Your task to perform on an android device: Open Yahoo.com Image 0: 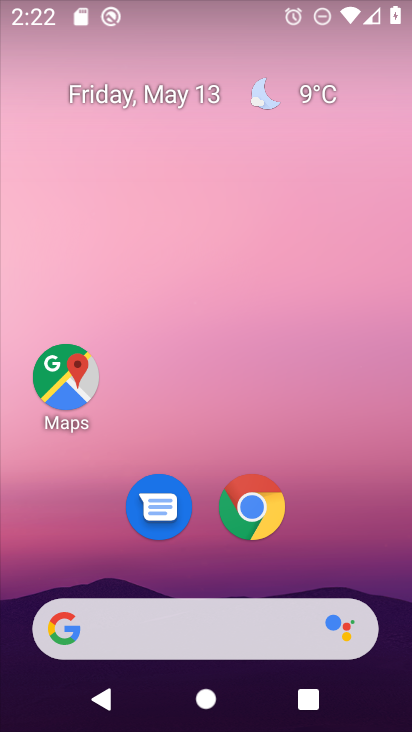
Step 0: drag from (352, 503) to (128, 4)
Your task to perform on an android device: Open Yahoo.com Image 1: 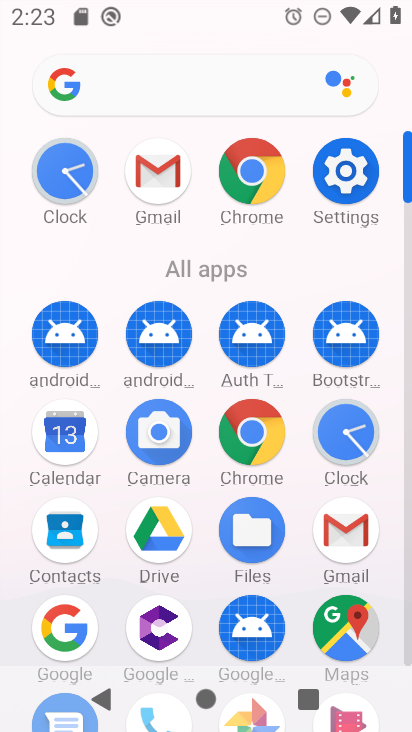
Step 1: click (252, 165)
Your task to perform on an android device: Open Yahoo.com Image 2: 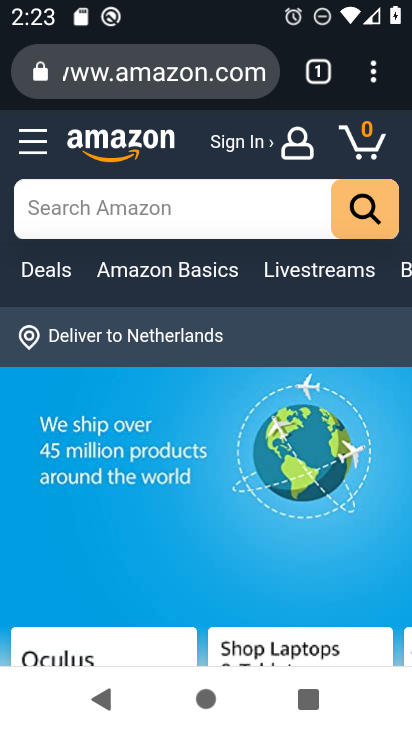
Step 2: click (169, 81)
Your task to perform on an android device: Open Yahoo.com Image 3: 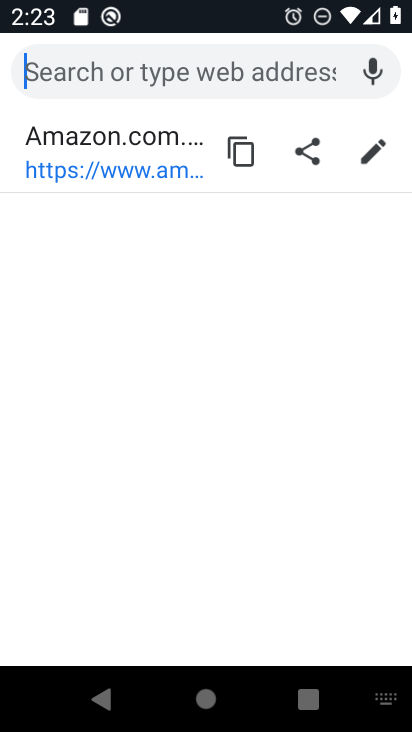
Step 3: type "yahoo.com"
Your task to perform on an android device: Open Yahoo.com Image 4: 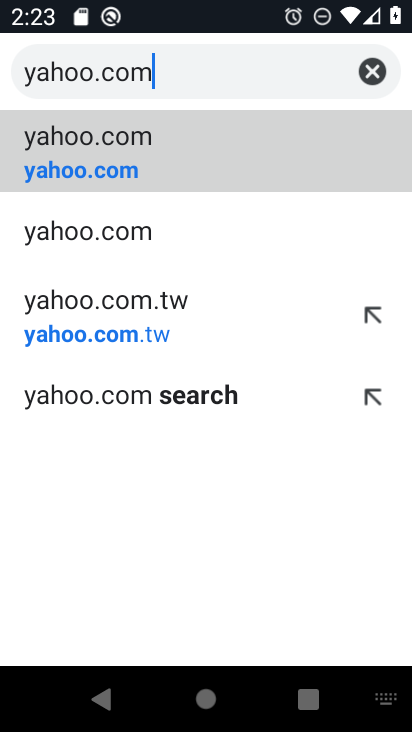
Step 4: click (72, 230)
Your task to perform on an android device: Open Yahoo.com Image 5: 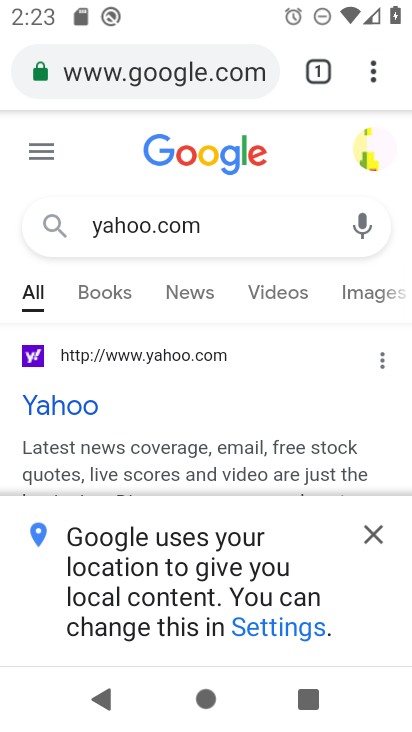
Step 5: click (46, 407)
Your task to perform on an android device: Open Yahoo.com Image 6: 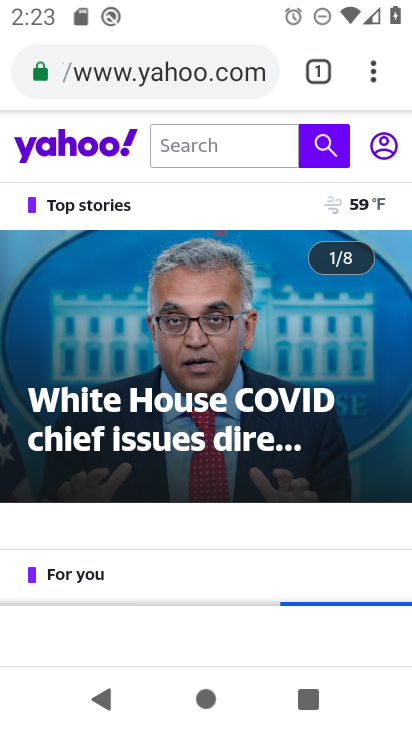
Step 6: task complete